Your task to perform on an android device: check storage Image 0: 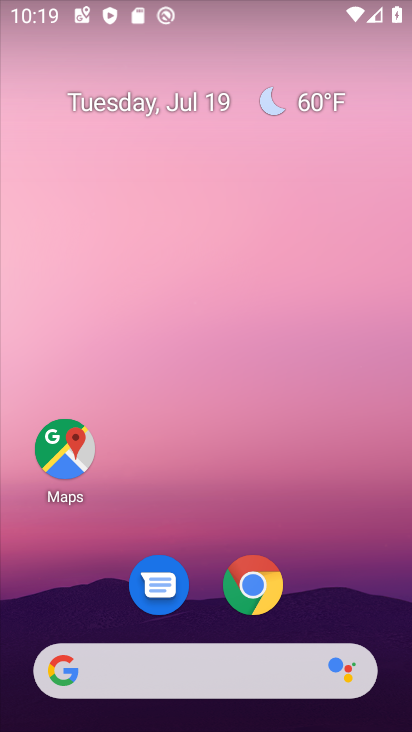
Step 0: drag from (320, 566) to (310, 98)
Your task to perform on an android device: check storage Image 1: 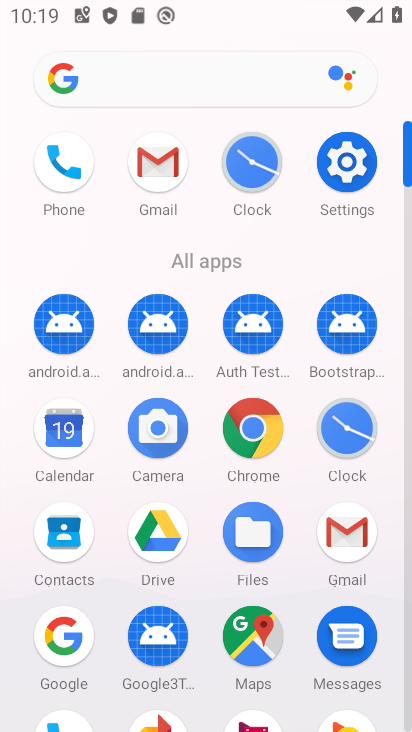
Step 1: click (359, 160)
Your task to perform on an android device: check storage Image 2: 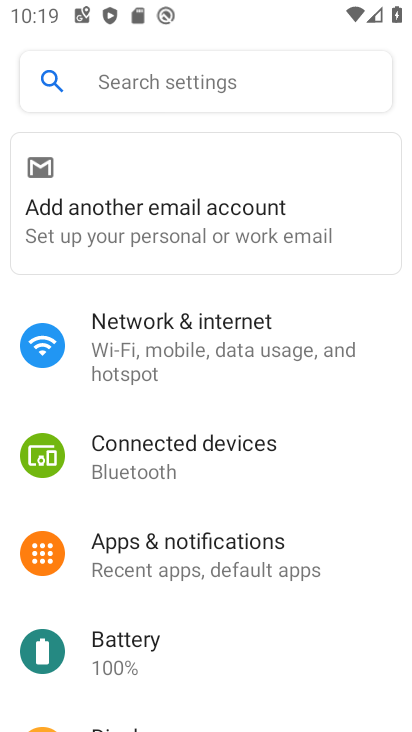
Step 2: drag from (218, 633) to (270, 167)
Your task to perform on an android device: check storage Image 3: 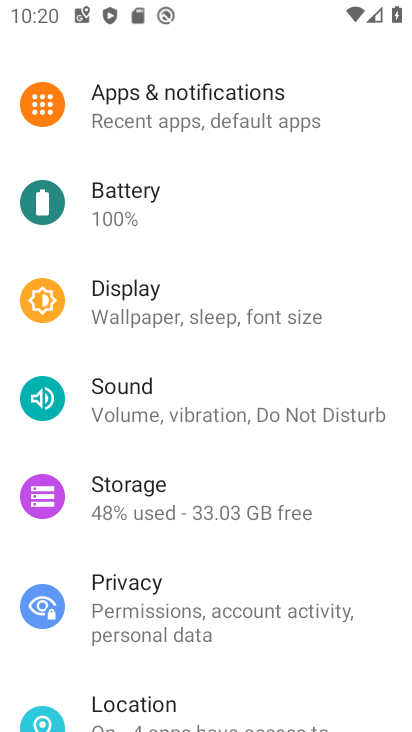
Step 3: click (184, 502)
Your task to perform on an android device: check storage Image 4: 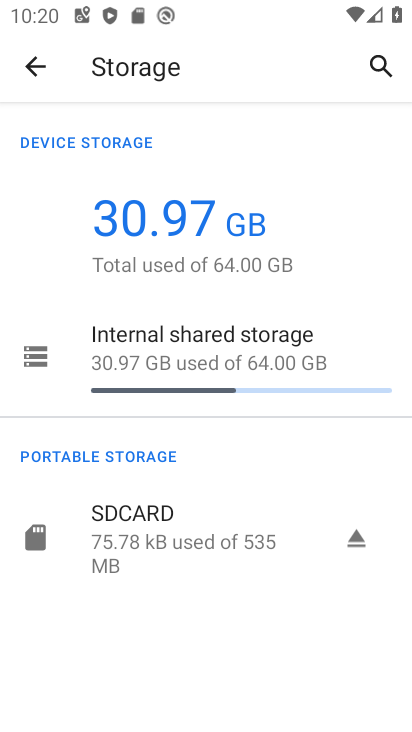
Step 4: task complete